Your task to perform on an android device: turn off picture-in-picture Image 0: 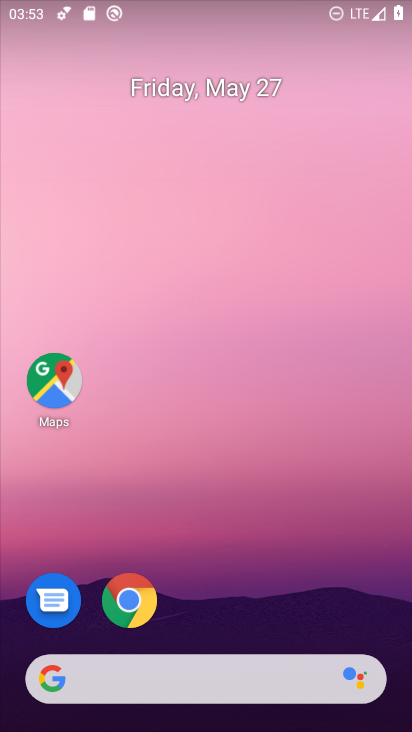
Step 0: drag from (202, 707) to (192, 69)
Your task to perform on an android device: turn off picture-in-picture Image 1: 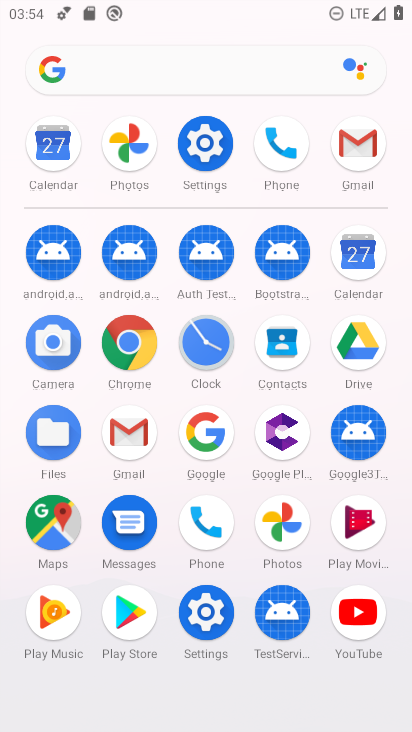
Step 1: click (213, 138)
Your task to perform on an android device: turn off picture-in-picture Image 2: 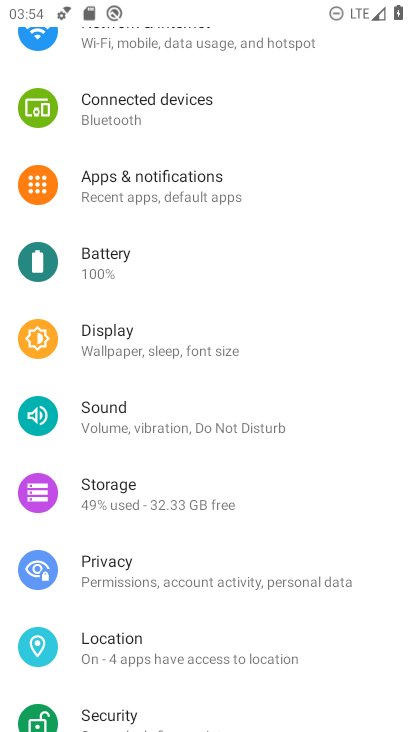
Step 2: click (144, 183)
Your task to perform on an android device: turn off picture-in-picture Image 3: 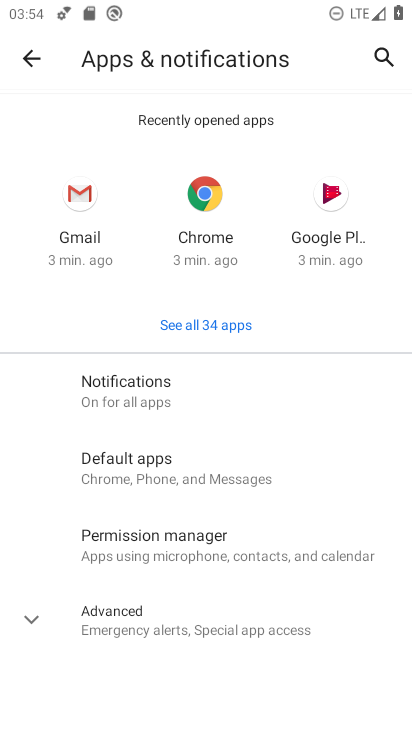
Step 3: click (115, 616)
Your task to perform on an android device: turn off picture-in-picture Image 4: 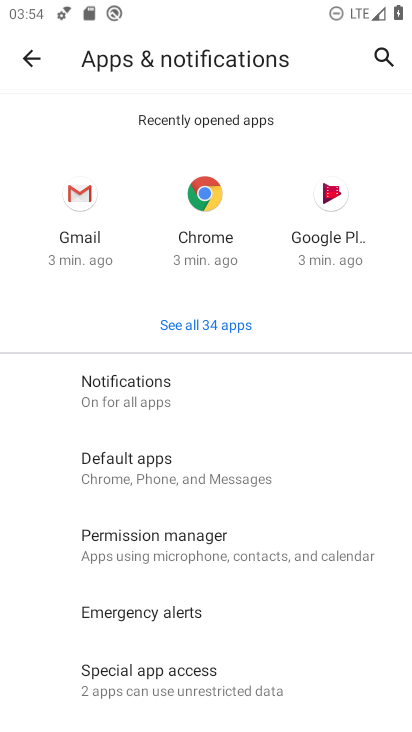
Step 4: drag from (163, 690) to (145, 374)
Your task to perform on an android device: turn off picture-in-picture Image 5: 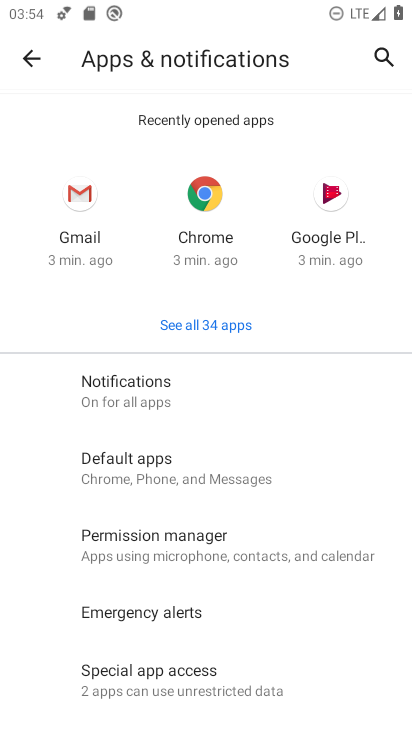
Step 5: click (137, 680)
Your task to perform on an android device: turn off picture-in-picture Image 6: 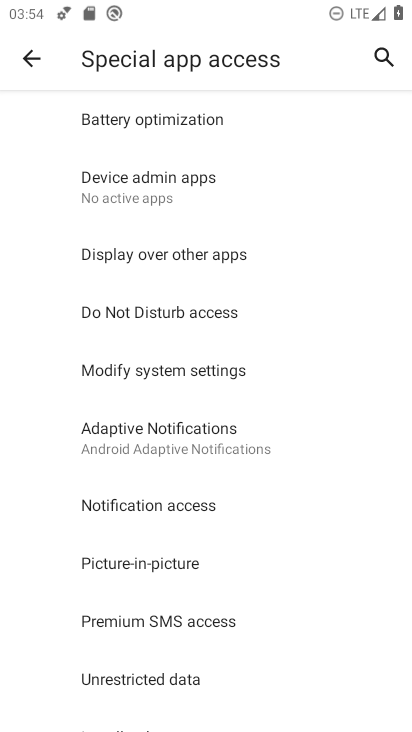
Step 6: click (149, 561)
Your task to perform on an android device: turn off picture-in-picture Image 7: 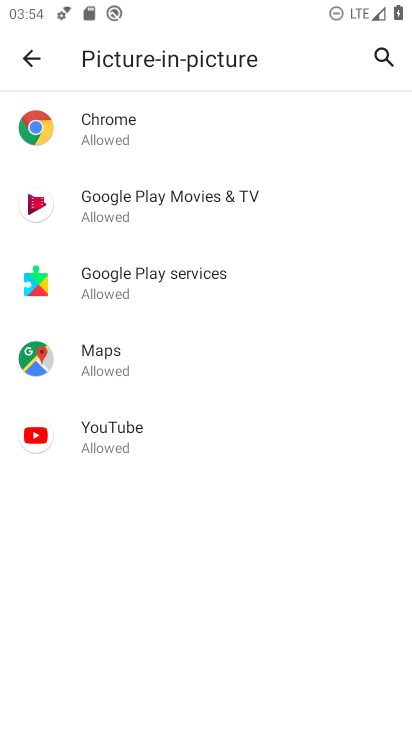
Step 7: click (90, 436)
Your task to perform on an android device: turn off picture-in-picture Image 8: 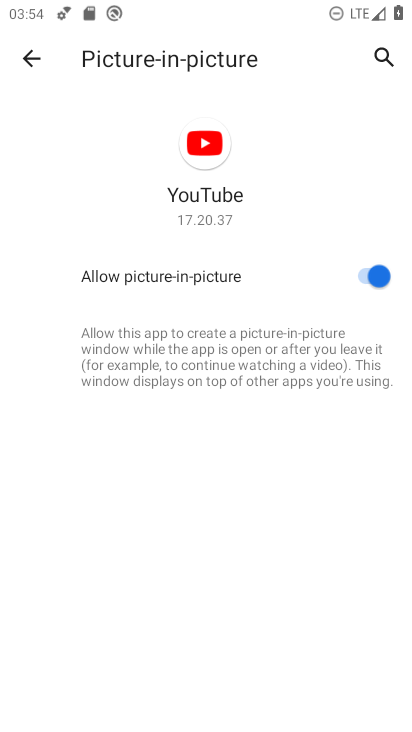
Step 8: click (360, 271)
Your task to perform on an android device: turn off picture-in-picture Image 9: 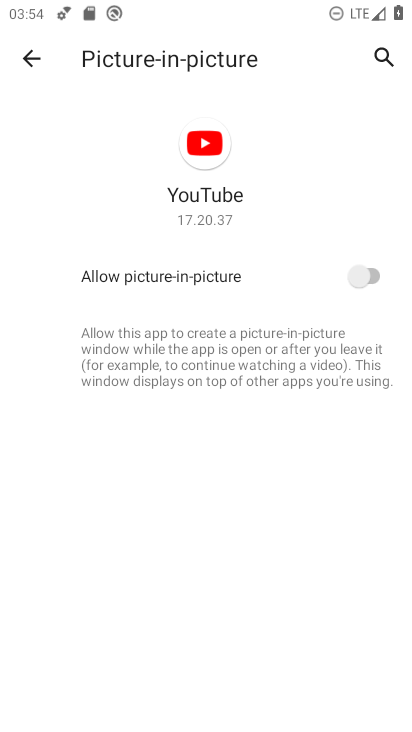
Step 9: task complete